Your task to perform on an android device: open app "Messenger Lite" Image 0: 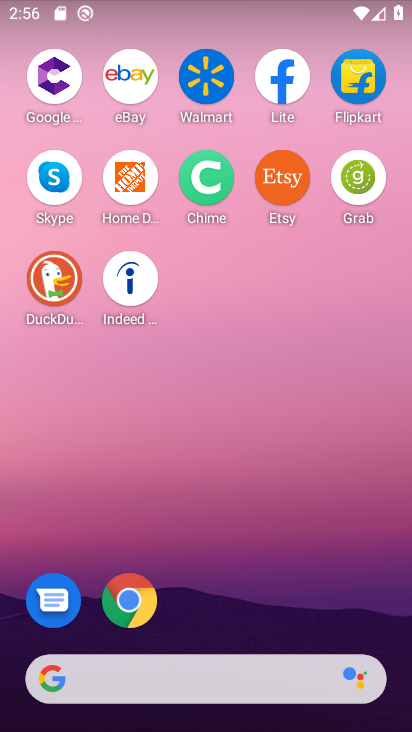
Step 0: drag from (216, 390) to (216, 129)
Your task to perform on an android device: open app "Messenger Lite" Image 1: 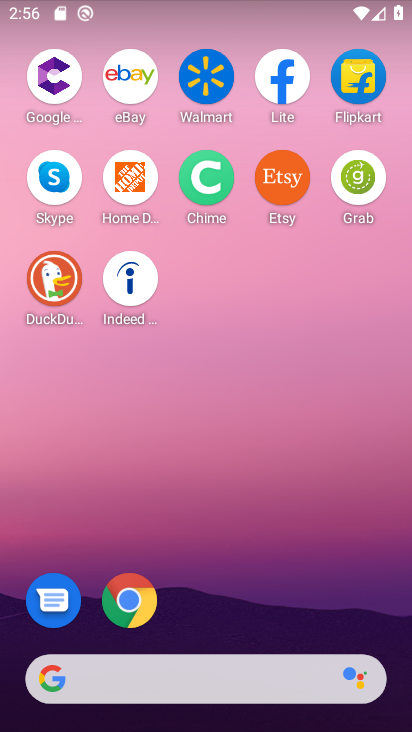
Step 1: drag from (230, 519) to (223, 111)
Your task to perform on an android device: open app "Messenger Lite" Image 2: 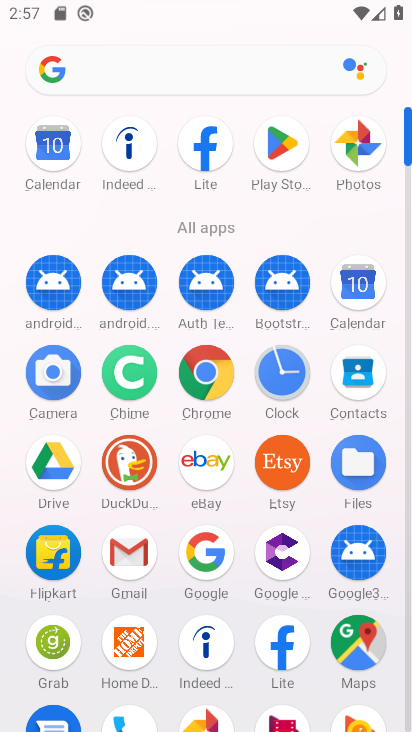
Step 2: click (285, 150)
Your task to perform on an android device: open app "Messenger Lite" Image 3: 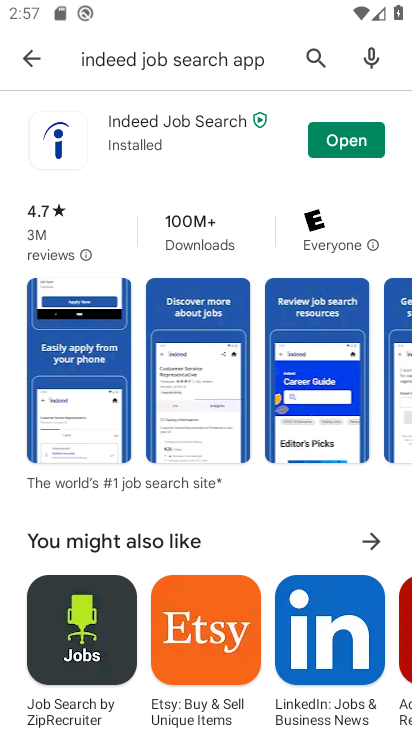
Step 3: click (307, 57)
Your task to perform on an android device: open app "Messenger Lite" Image 4: 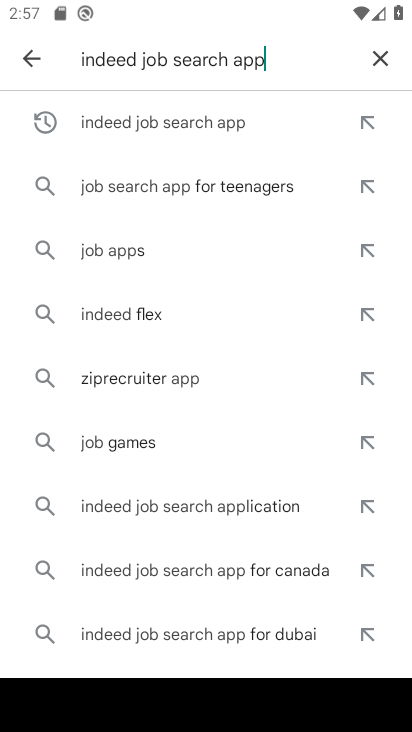
Step 4: click (388, 52)
Your task to perform on an android device: open app "Messenger Lite" Image 5: 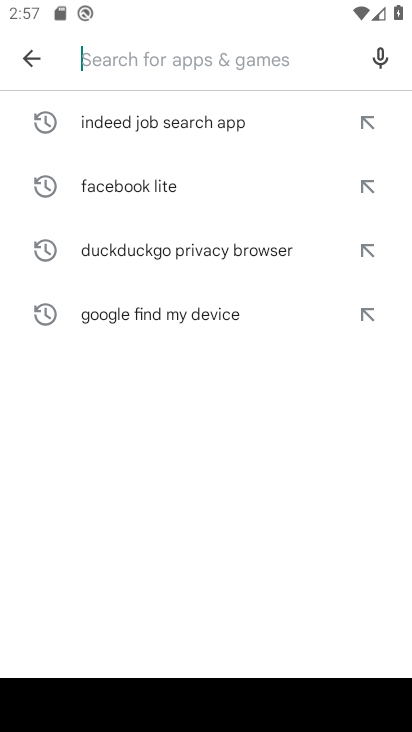
Step 5: click (142, 54)
Your task to perform on an android device: open app "Messenger Lite" Image 6: 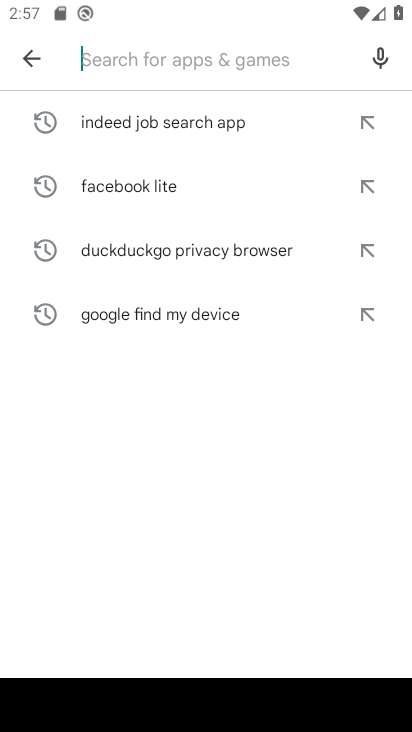
Step 6: type "Messenger Lite"
Your task to perform on an android device: open app "Messenger Lite" Image 7: 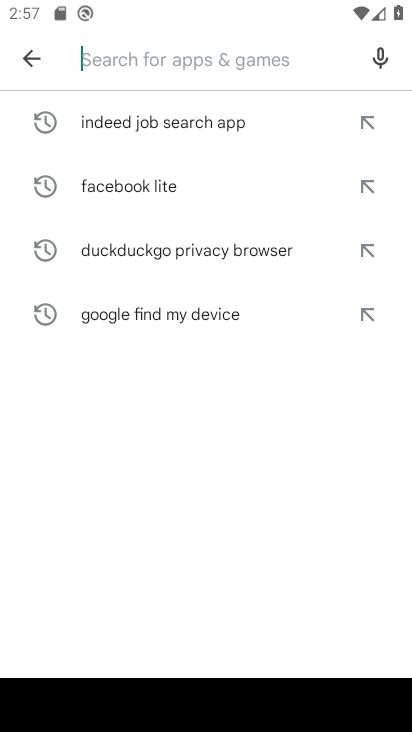
Step 7: click (202, 462)
Your task to perform on an android device: open app "Messenger Lite" Image 8: 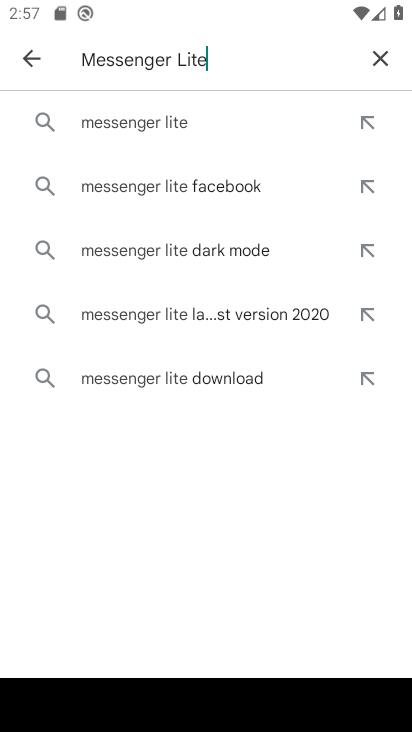
Step 8: click (145, 123)
Your task to perform on an android device: open app "Messenger Lite" Image 9: 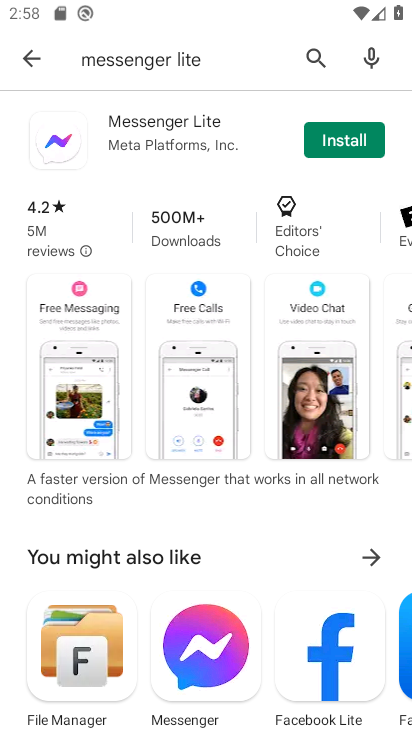
Step 9: task complete